Your task to perform on an android device: open app "Grab" Image 0: 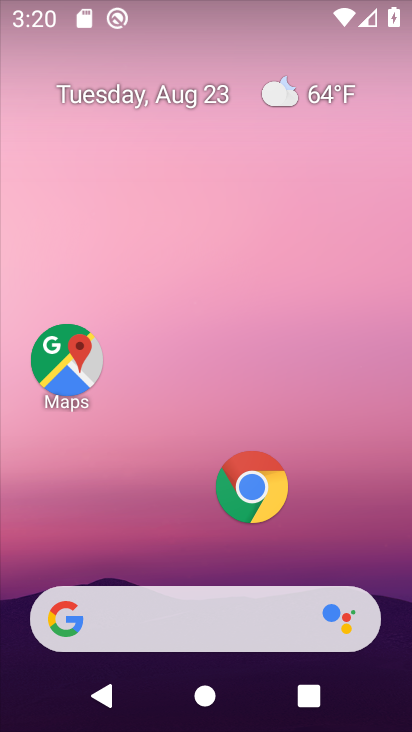
Step 0: drag from (197, 578) to (203, 256)
Your task to perform on an android device: open app "Grab" Image 1: 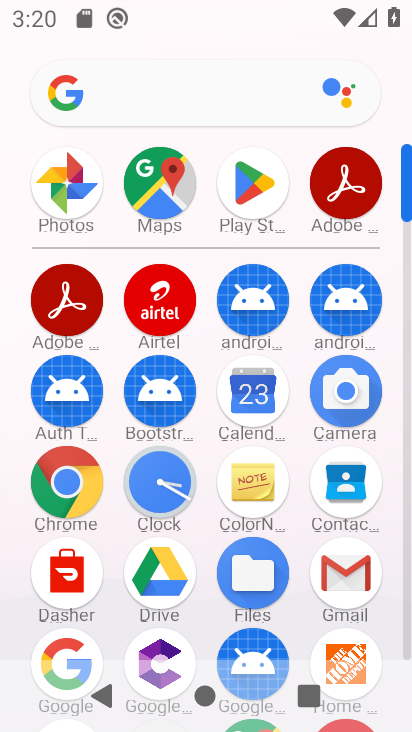
Step 1: click (247, 174)
Your task to perform on an android device: open app "Grab" Image 2: 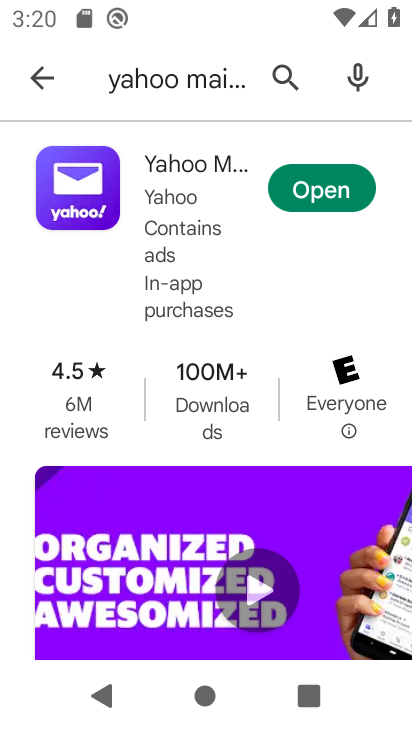
Step 2: click (35, 67)
Your task to perform on an android device: open app "Grab" Image 3: 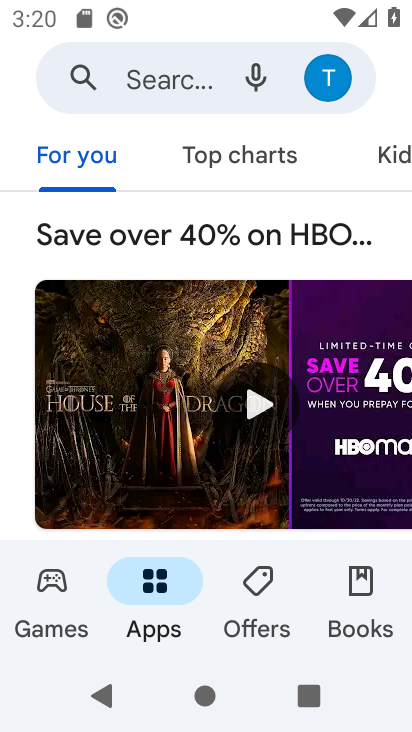
Step 3: click (156, 61)
Your task to perform on an android device: open app "Grab" Image 4: 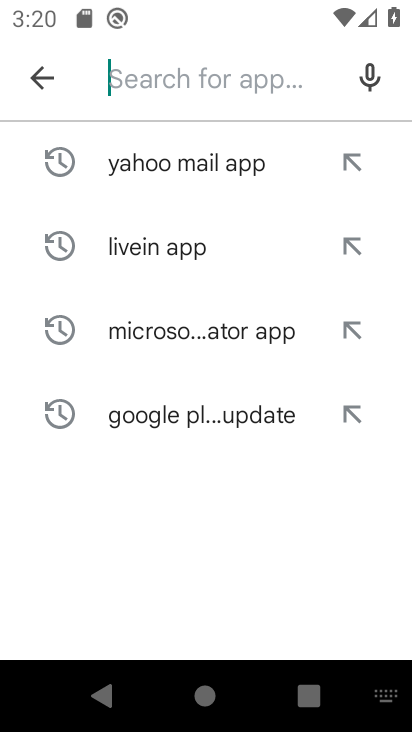
Step 4: type "grab "
Your task to perform on an android device: open app "Grab" Image 5: 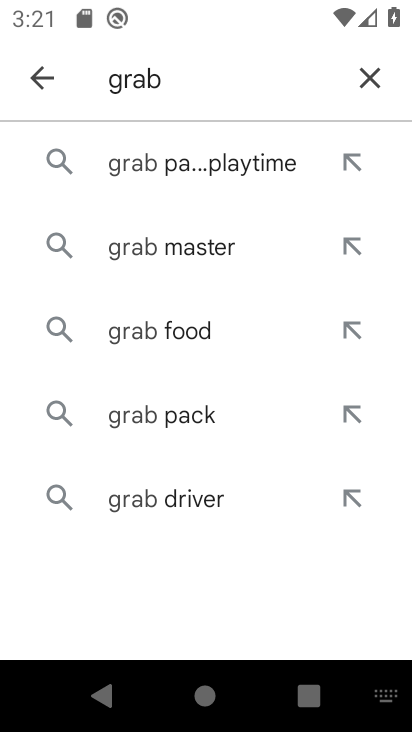
Step 5: click (107, 151)
Your task to perform on an android device: open app "Grab" Image 6: 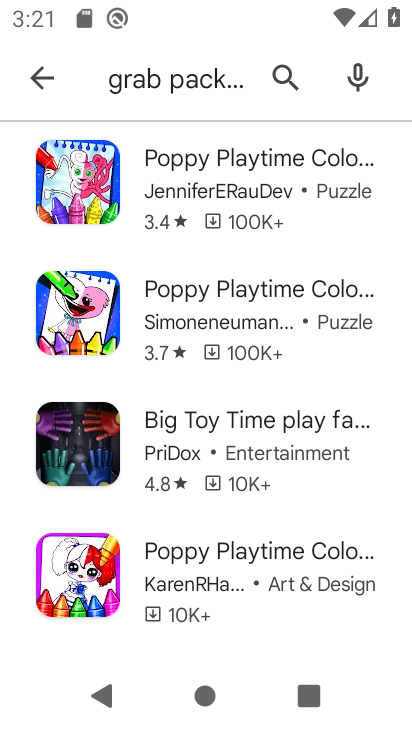
Step 6: task complete